Your task to perform on an android device: Do I have any events tomorrow? Image 0: 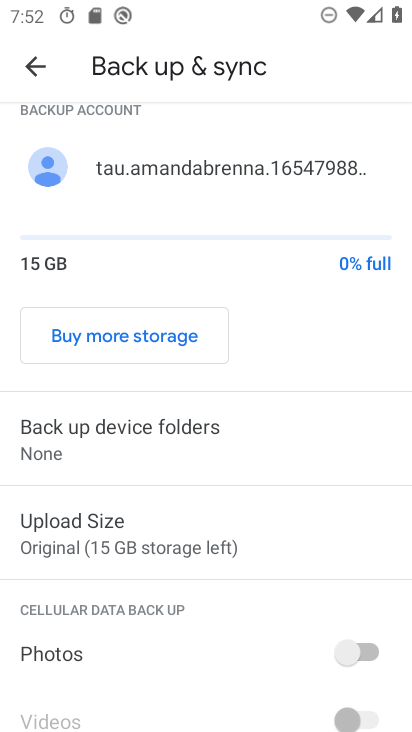
Step 0: press home button
Your task to perform on an android device: Do I have any events tomorrow? Image 1: 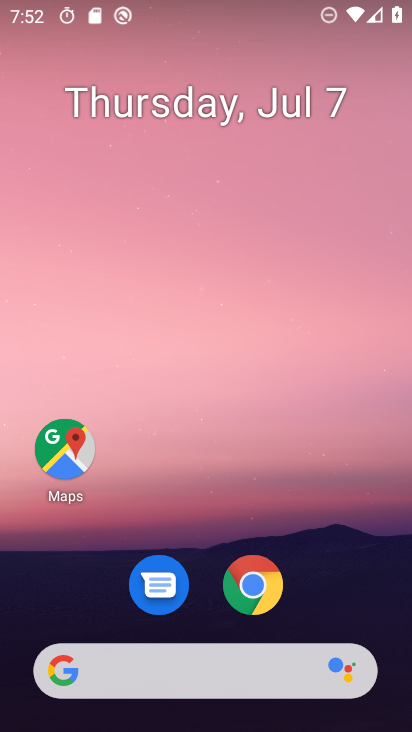
Step 1: drag from (180, 673) to (353, 91)
Your task to perform on an android device: Do I have any events tomorrow? Image 2: 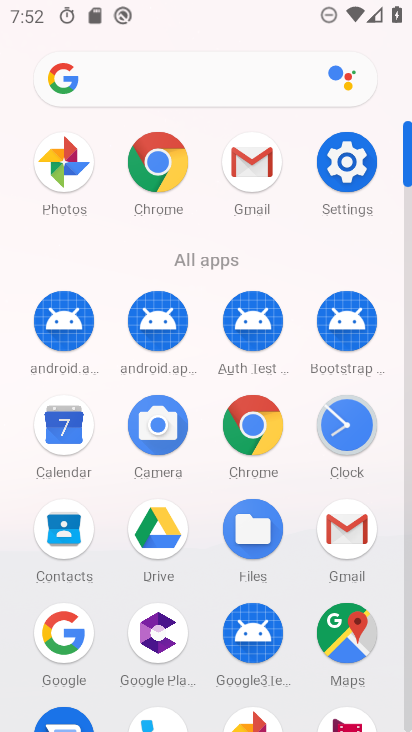
Step 2: click (57, 436)
Your task to perform on an android device: Do I have any events tomorrow? Image 3: 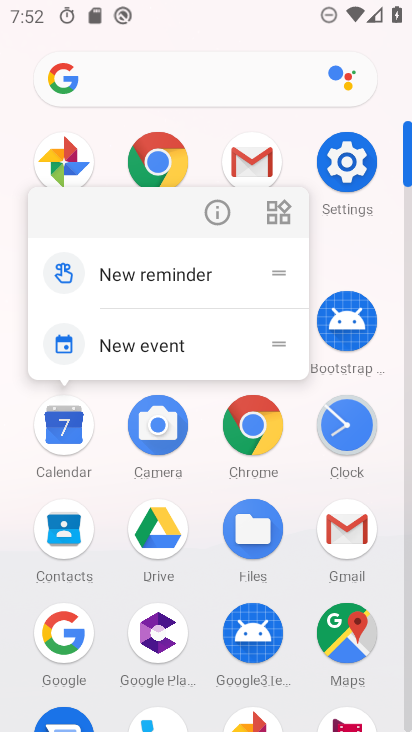
Step 3: click (67, 436)
Your task to perform on an android device: Do I have any events tomorrow? Image 4: 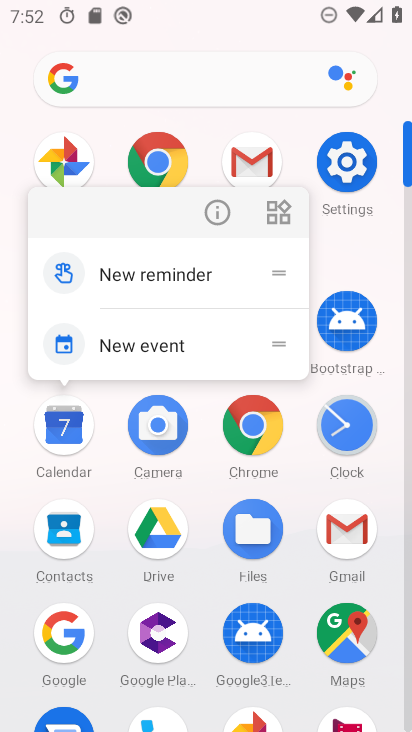
Step 4: click (67, 436)
Your task to perform on an android device: Do I have any events tomorrow? Image 5: 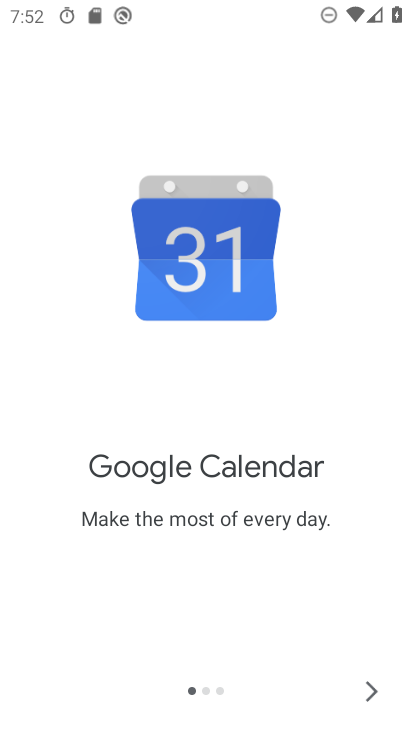
Step 5: click (370, 691)
Your task to perform on an android device: Do I have any events tomorrow? Image 6: 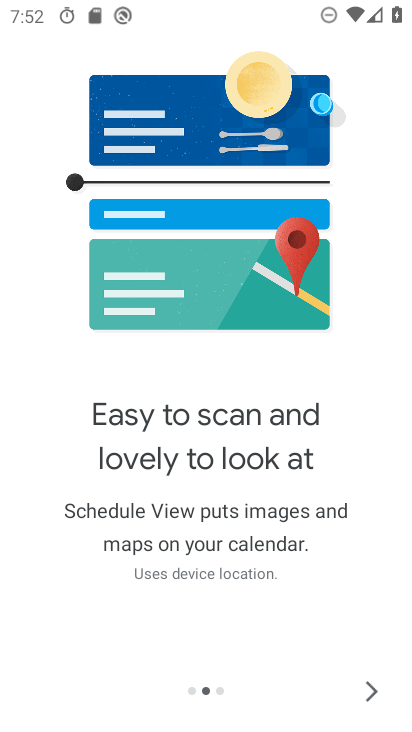
Step 6: click (370, 692)
Your task to perform on an android device: Do I have any events tomorrow? Image 7: 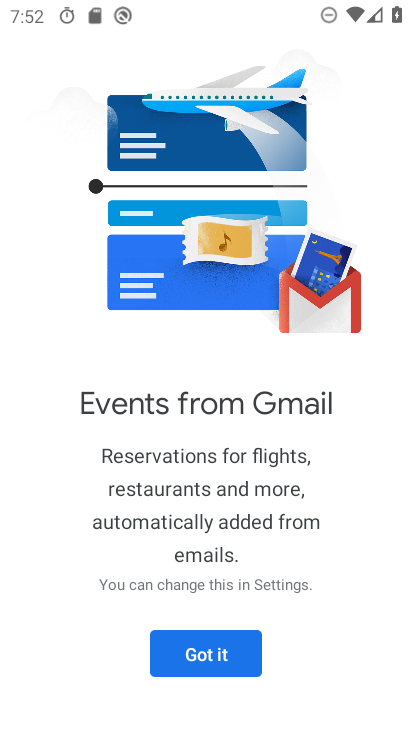
Step 7: click (217, 657)
Your task to perform on an android device: Do I have any events tomorrow? Image 8: 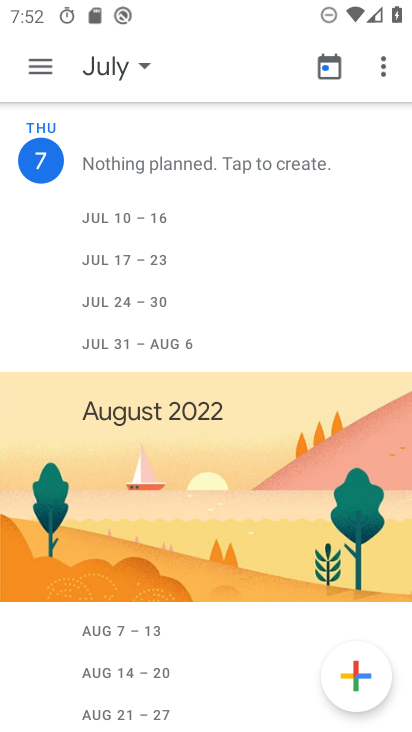
Step 8: click (110, 56)
Your task to perform on an android device: Do I have any events tomorrow? Image 9: 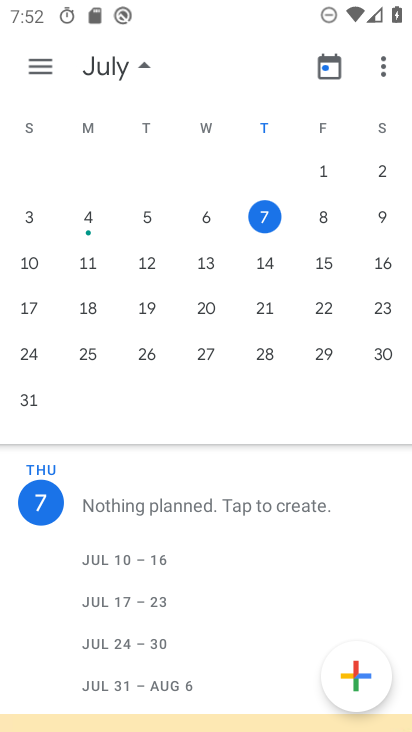
Step 9: click (325, 214)
Your task to perform on an android device: Do I have any events tomorrow? Image 10: 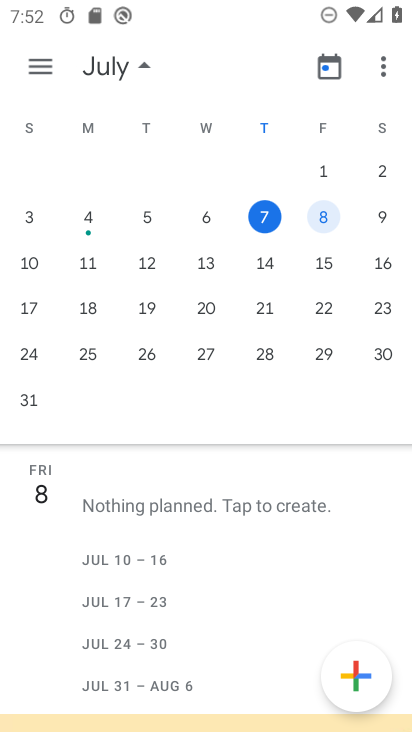
Step 10: click (55, 71)
Your task to perform on an android device: Do I have any events tomorrow? Image 11: 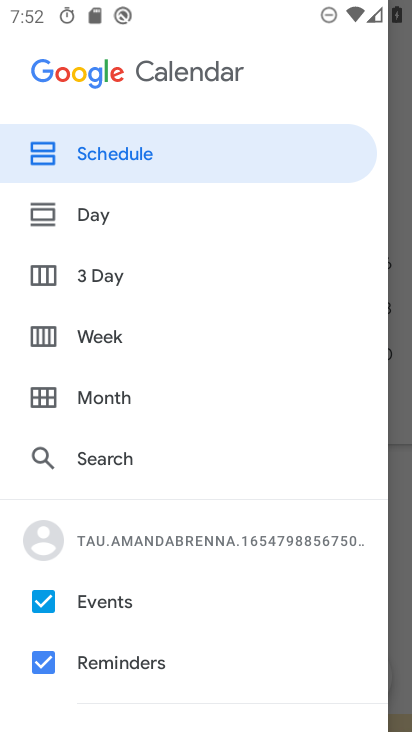
Step 11: click (107, 148)
Your task to perform on an android device: Do I have any events tomorrow? Image 12: 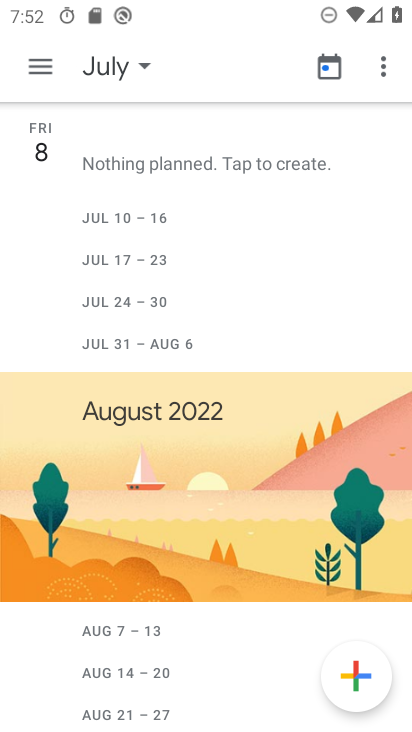
Step 12: task complete